Your task to perform on an android device: turn on location history Image 0: 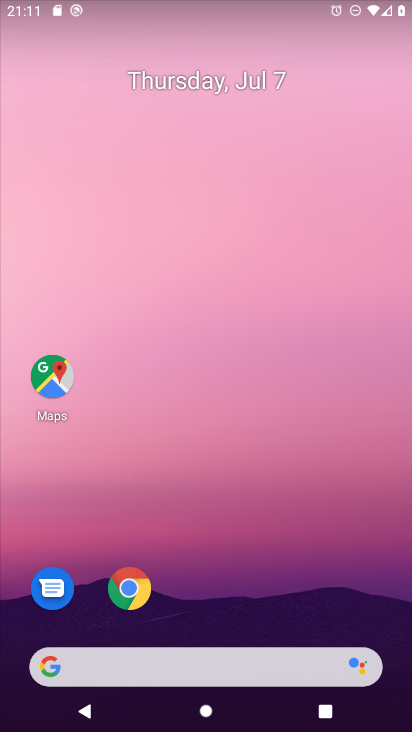
Step 0: drag from (204, 615) to (226, 215)
Your task to perform on an android device: turn on location history Image 1: 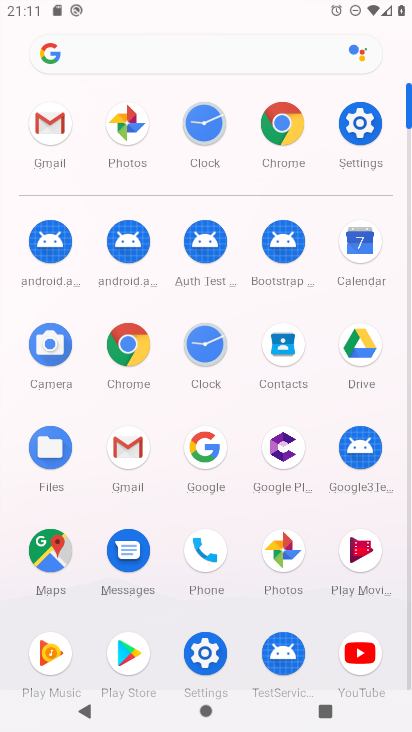
Step 1: click (354, 109)
Your task to perform on an android device: turn on location history Image 2: 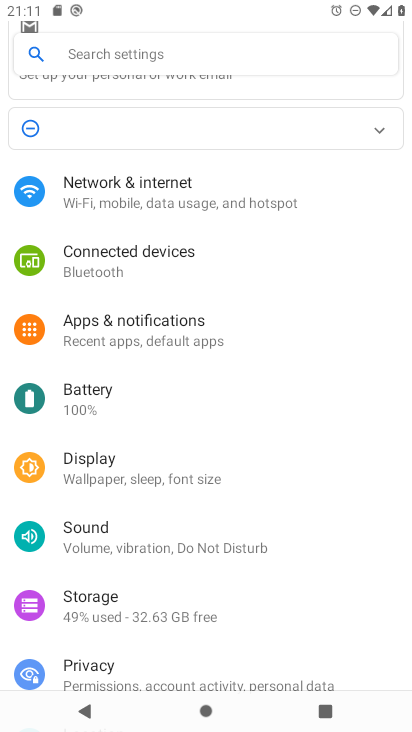
Step 2: drag from (170, 590) to (178, 362)
Your task to perform on an android device: turn on location history Image 3: 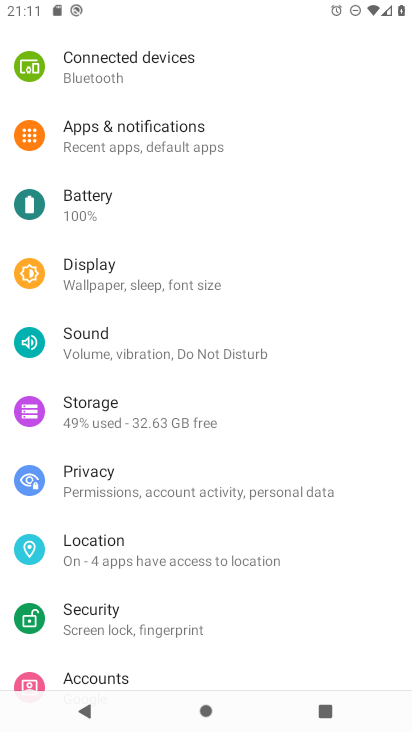
Step 3: click (132, 547)
Your task to perform on an android device: turn on location history Image 4: 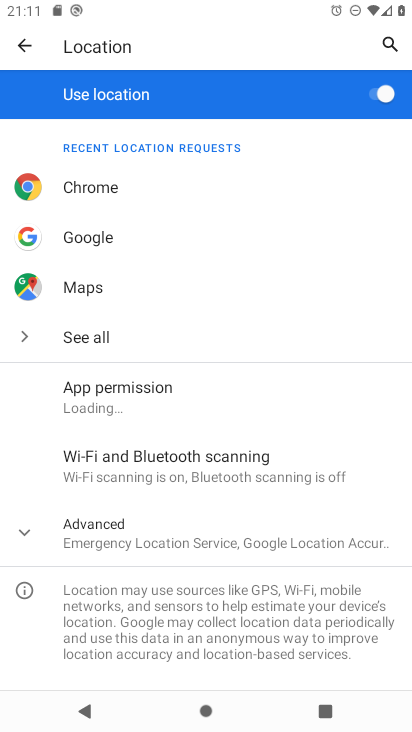
Step 4: click (132, 546)
Your task to perform on an android device: turn on location history Image 5: 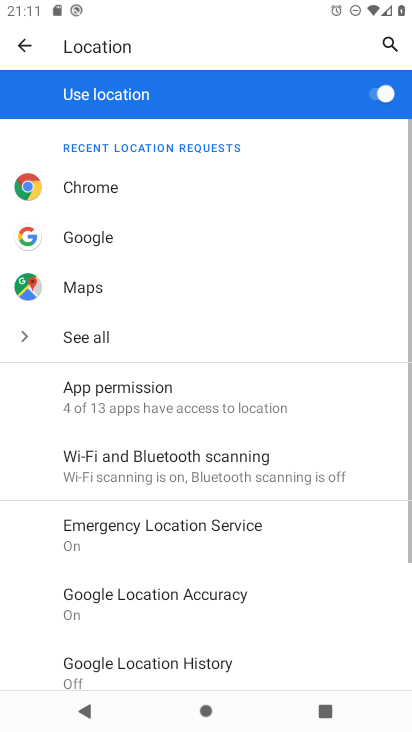
Step 5: drag from (172, 620) to (195, 380)
Your task to perform on an android device: turn on location history Image 6: 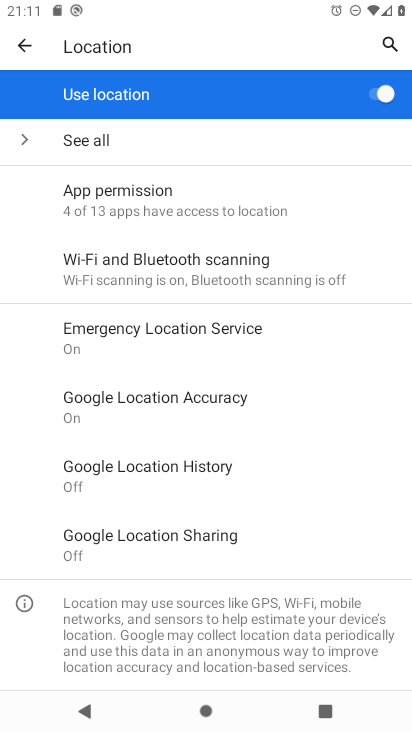
Step 6: click (159, 473)
Your task to perform on an android device: turn on location history Image 7: 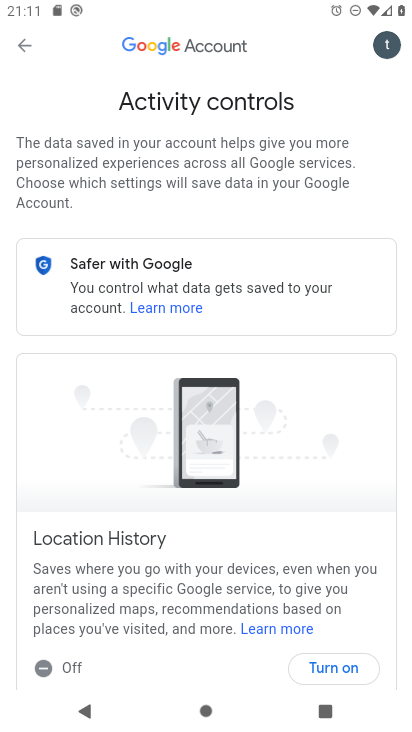
Step 7: click (323, 665)
Your task to perform on an android device: turn on location history Image 8: 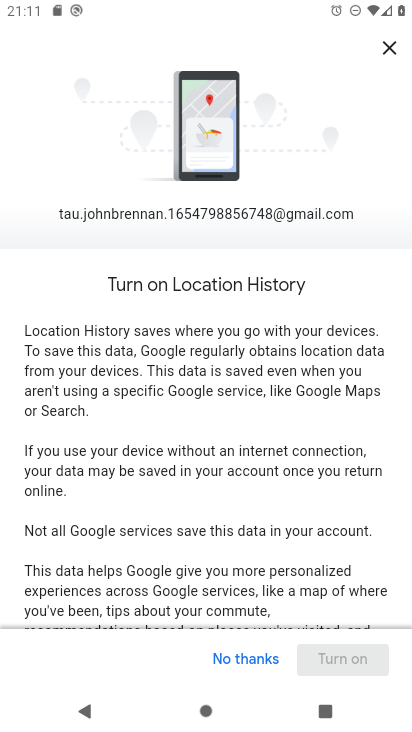
Step 8: task complete